Your task to perform on an android device: Go to Amazon Image 0: 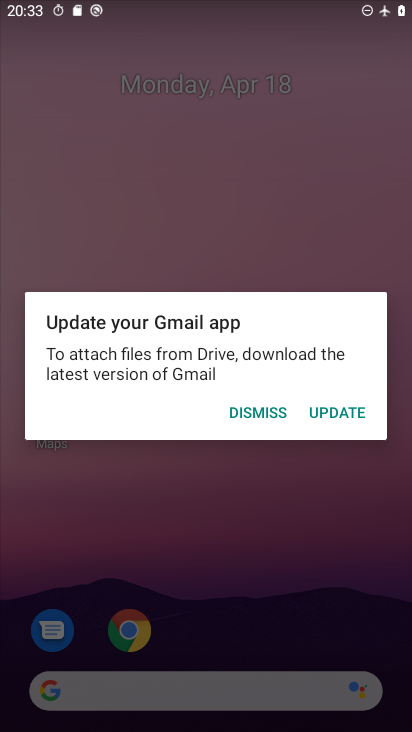
Step 0: click (254, 408)
Your task to perform on an android device: Go to Amazon Image 1: 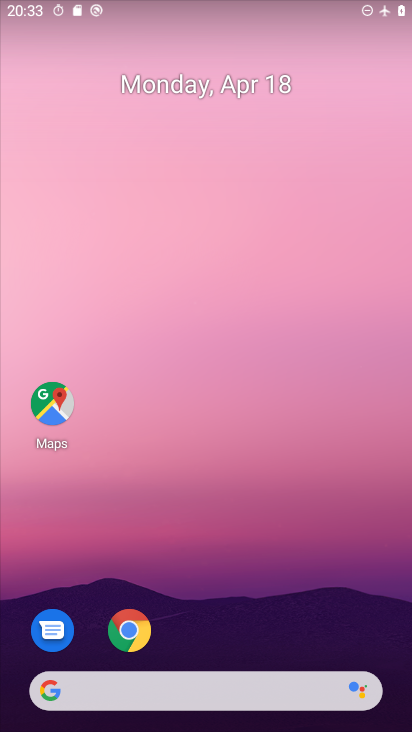
Step 1: click (133, 638)
Your task to perform on an android device: Go to Amazon Image 2: 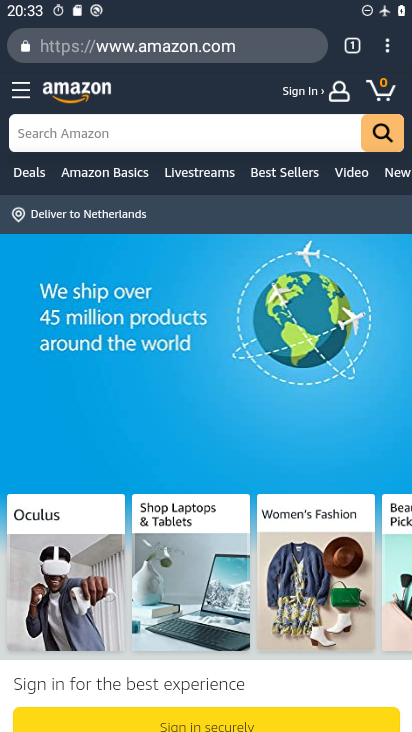
Step 2: task complete